Your task to perform on an android device: See recent photos Image 0: 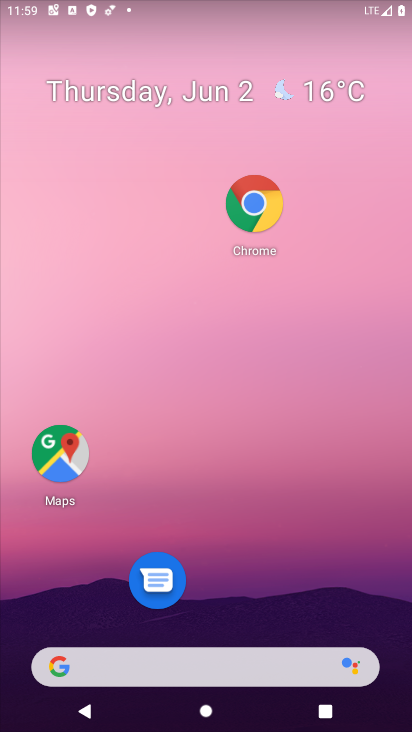
Step 0: drag from (236, 622) to (253, 451)
Your task to perform on an android device: See recent photos Image 1: 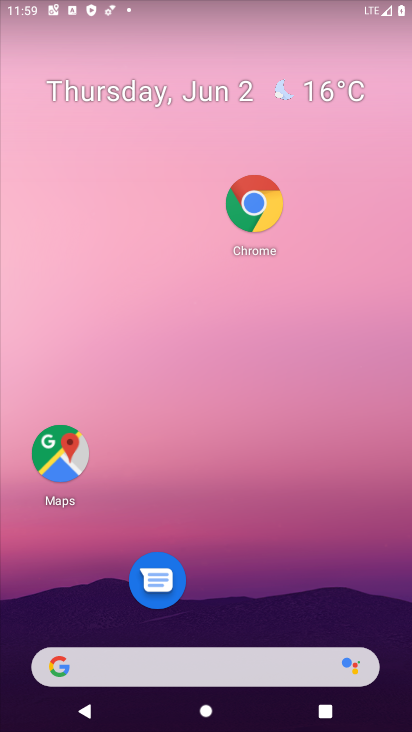
Step 1: drag from (296, 665) to (312, 389)
Your task to perform on an android device: See recent photos Image 2: 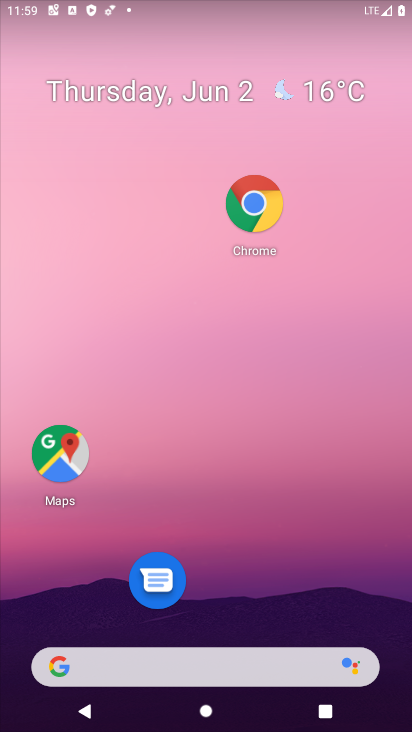
Step 2: drag from (240, 523) to (245, 411)
Your task to perform on an android device: See recent photos Image 3: 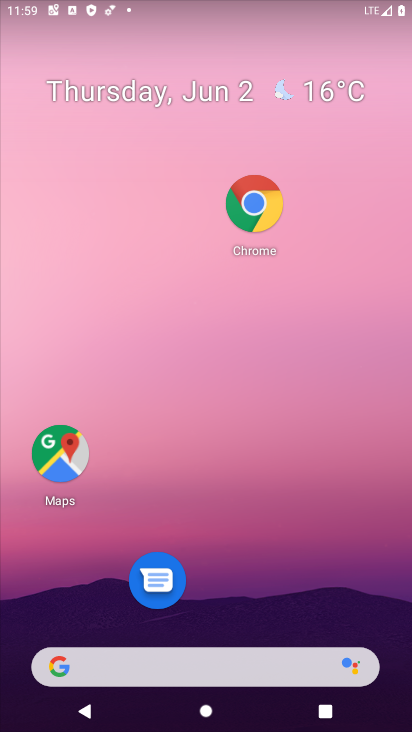
Step 3: drag from (242, 479) to (272, 272)
Your task to perform on an android device: See recent photos Image 4: 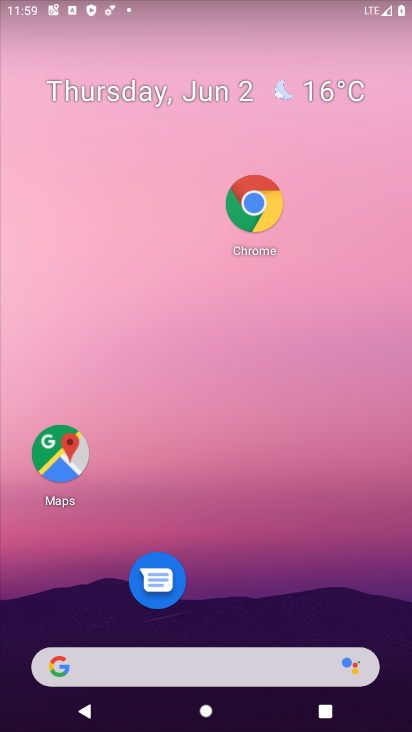
Step 4: drag from (221, 642) to (322, 53)
Your task to perform on an android device: See recent photos Image 5: 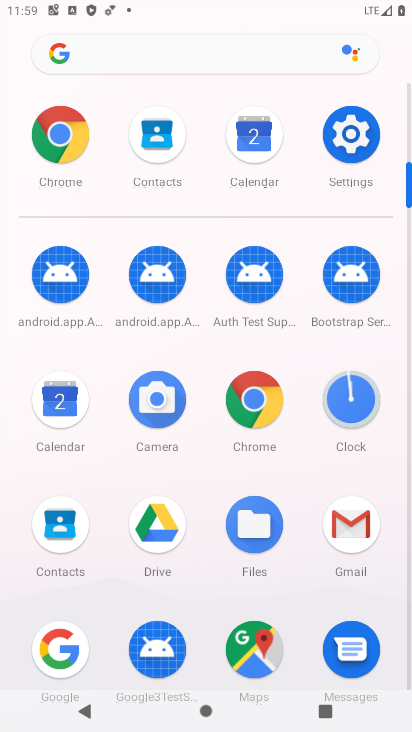
Step 5: drag from (239, 350) to (262, 222)
Your task to perform on an android device: See recent photos Image 6: 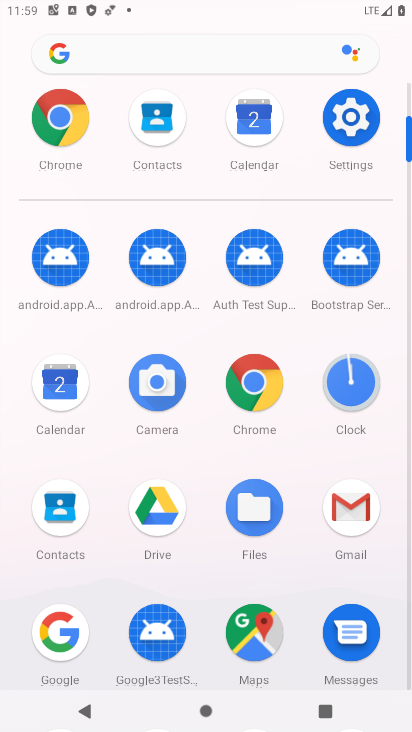
Step 6: drag from (220, 562) to (229, 173)
Your task to perform on an android device: See recent photos Image 7: 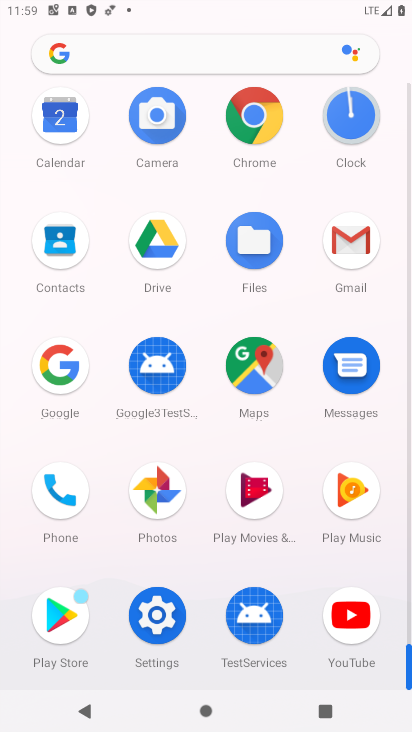
Step 7: click (162, 508)
Your task to perform on an android device: See recent photos Image 8: 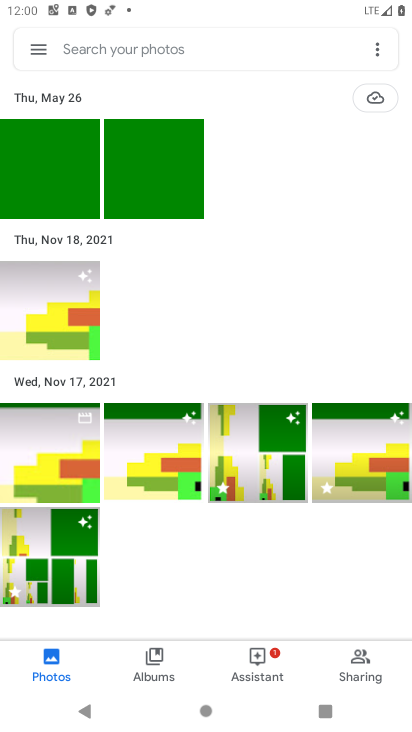
Step 8: click (55, 670)
Your task to perform on an android device: See recent photos Image 9: 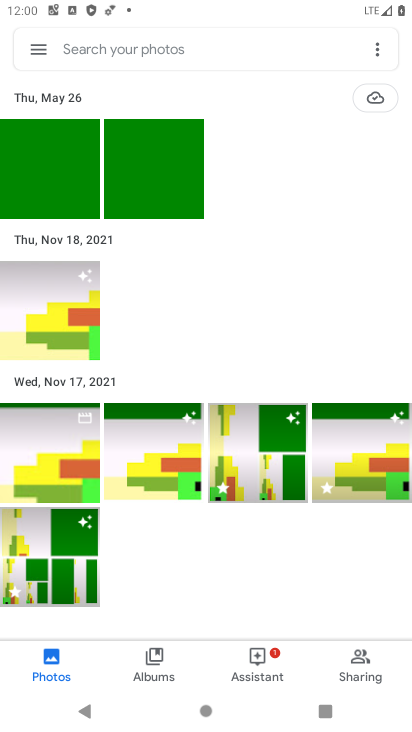
Step 9: task complete